Your task to perform on an android device: Open Amazon Image 0: 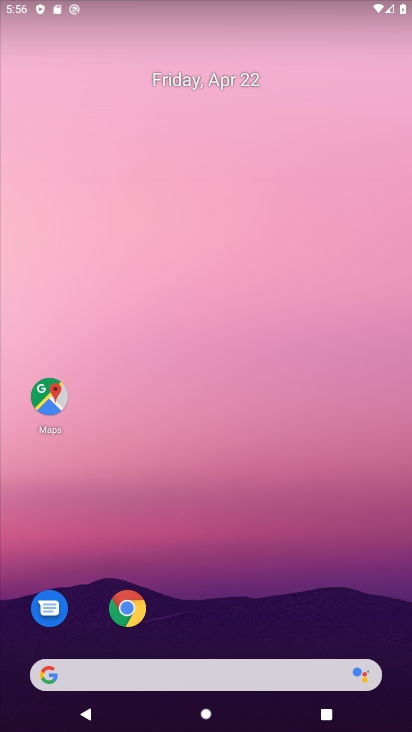
Step 0: click (205, 199)
Your task to perform on an android device: Open Amazon Image 1: 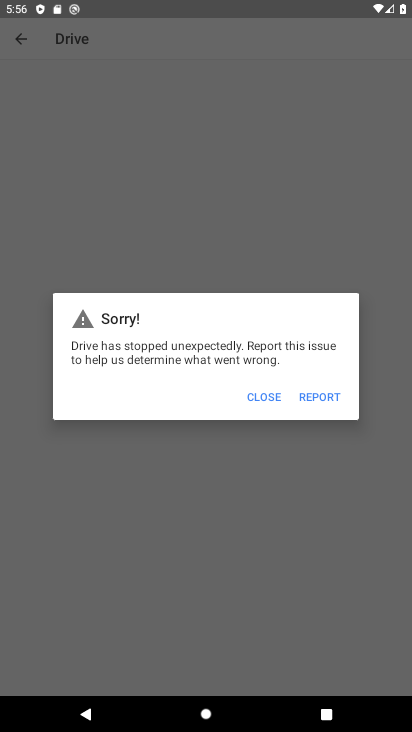
Step 1: press home button
Your task to perform on an android device: Open Amazon Image 2: 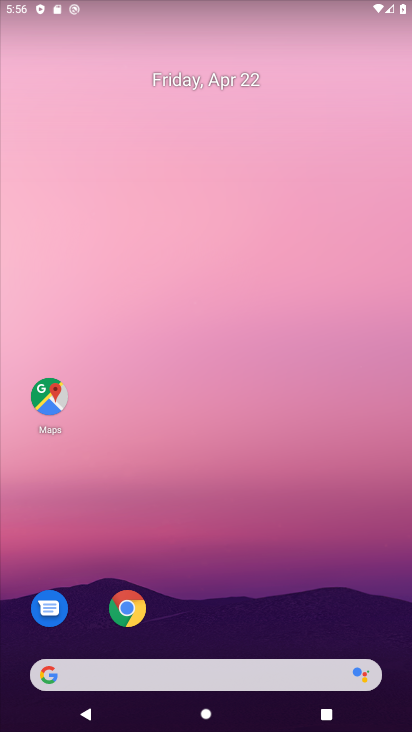
Step 2: click (136, 611)
Your task to perform on an android device: Open Amazon Image 3: 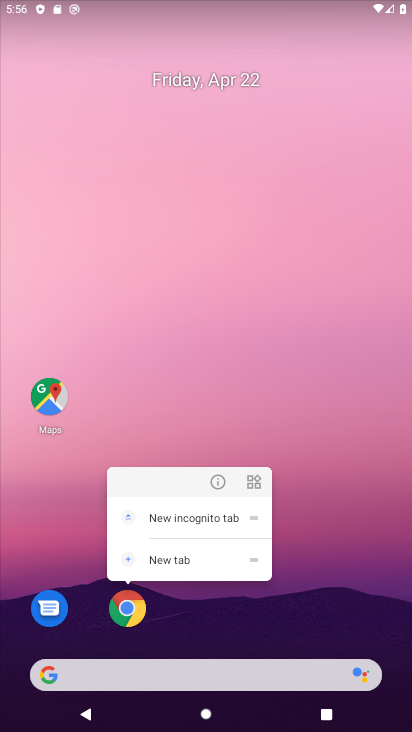
Step 3: click (127, 616)
Your task to perform on an android device: Open Amazon Image 4: 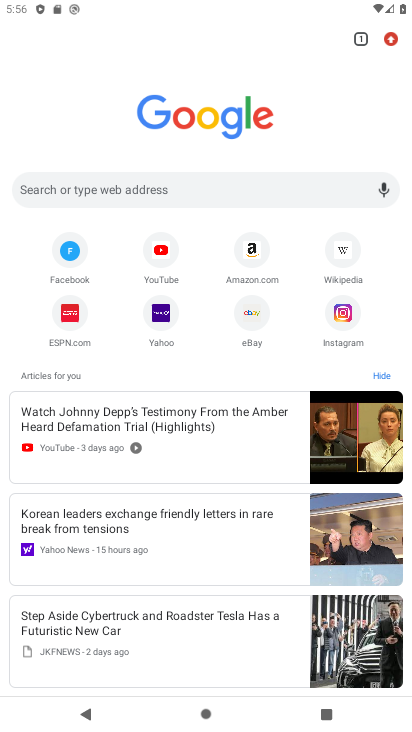
Step 4: click (254, 251)
Your task to perform on an android device: Open Amazon Image 5: 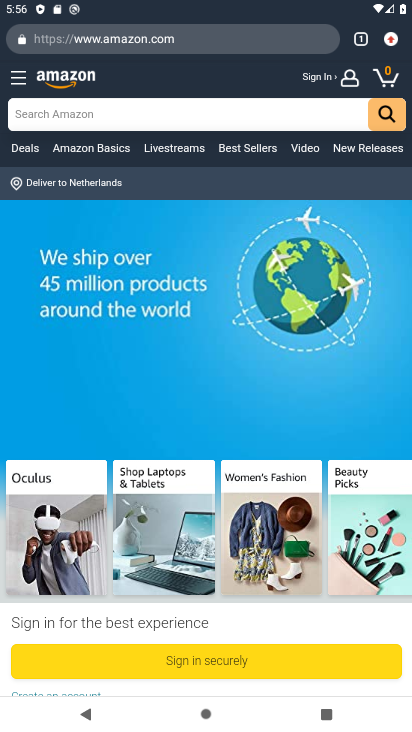
Step 5: task complete